Your task to perform on an android device: add a contact Image 0: 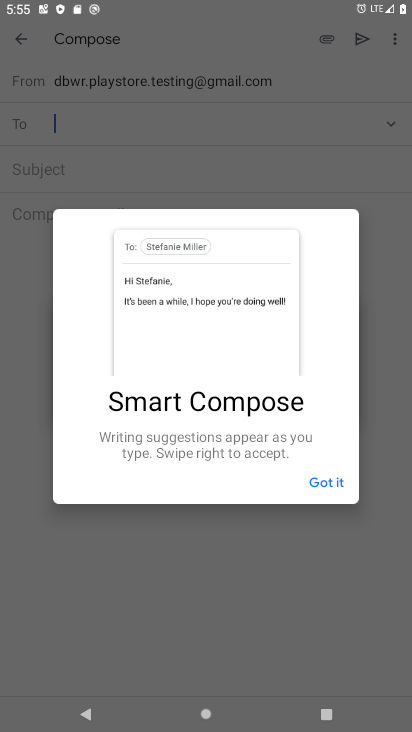
Step 0: press home button
Your task to perform on an android device: add a contact Image 1: 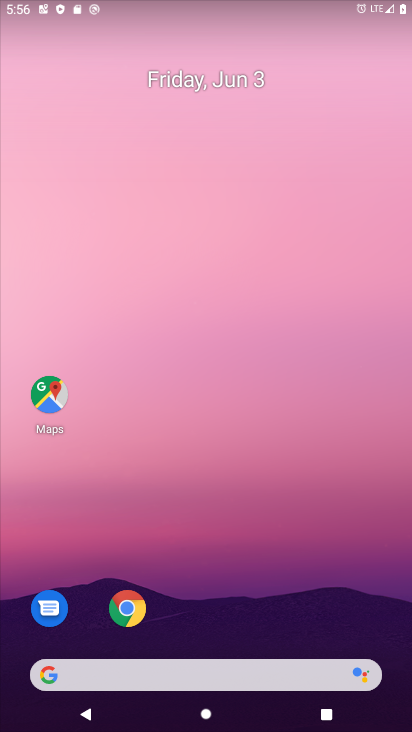
Step 1: drag from (255, 556) to (265, 248)
Your task to perform on an android device: add a contact Image 2: 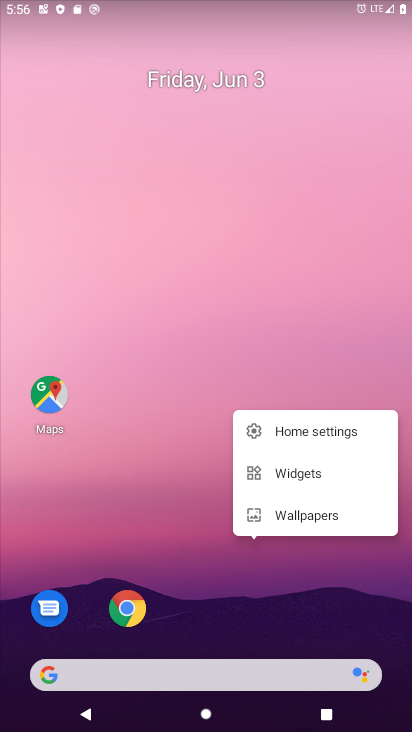
Step 2: click (265, 248)
Your task to perform on an android device: add a contact Image 3: 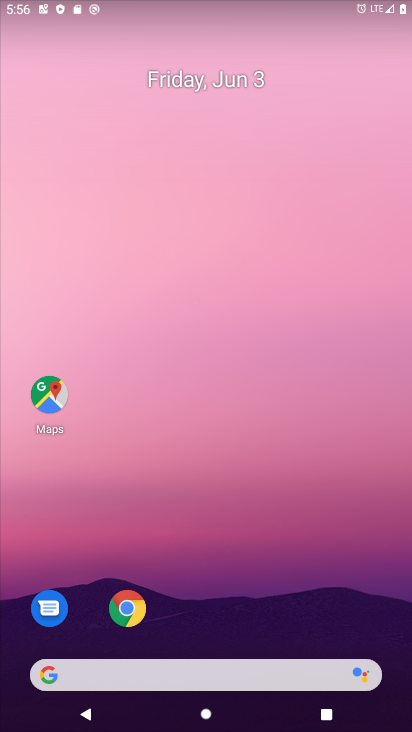
Step 3: drag from (232, 525) to (253, 252)
Your task to perform on an android device: add a contact Image 4: 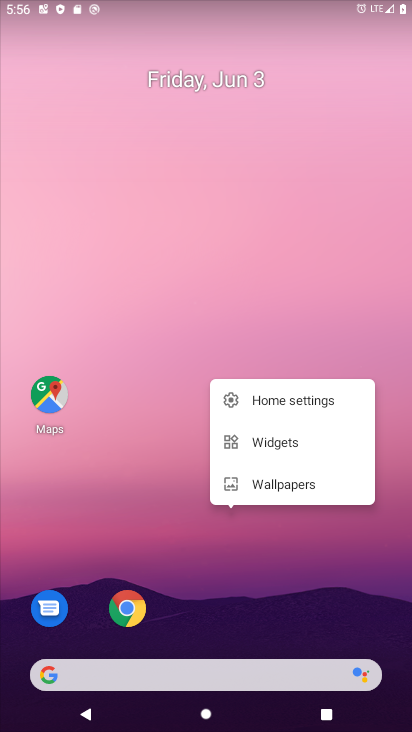
Step 4: click (253, 252)
Your task to perform on an android device: add a contact Image 5: 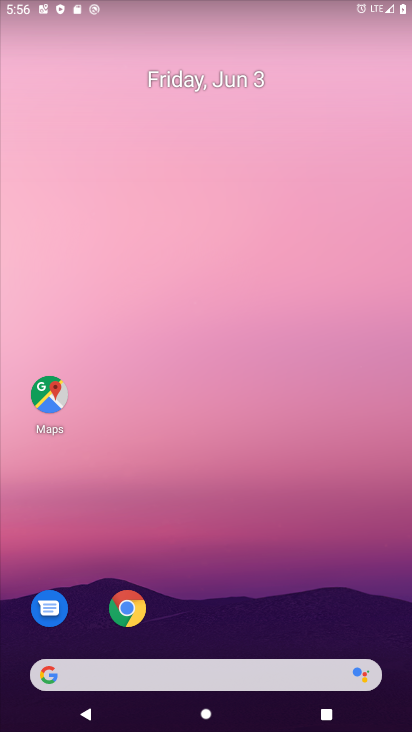
Step 5: drag from (319, 577) to (279, 8)
Your task to perform on an android device: add a contact Image 6: 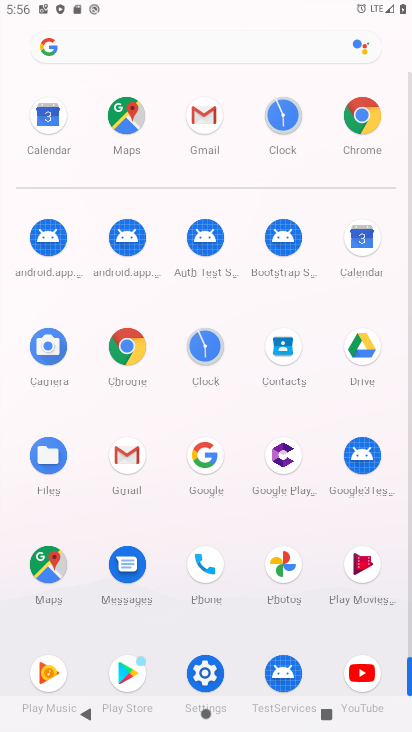
Step 6: click (276, 354)
Your task to perform on an android device: add a contact Image 7: 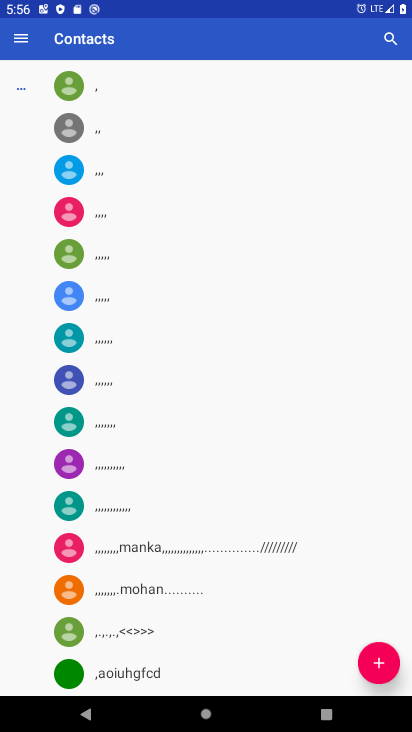
Step 7: click (370, 660)
Your task to perform on an android device: add a contact Image 8: 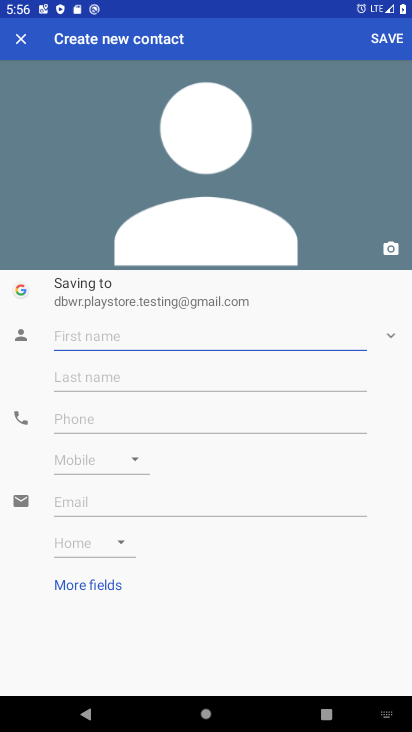
Step 8: type "gg"
Your task to perform on an android device: add a contact Image 9: 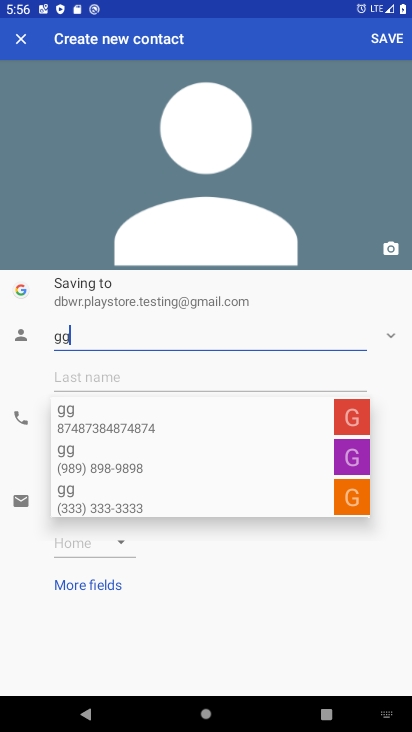
Step 9: type "fg"
Your task to perform on an android device: add a contact Image 10: 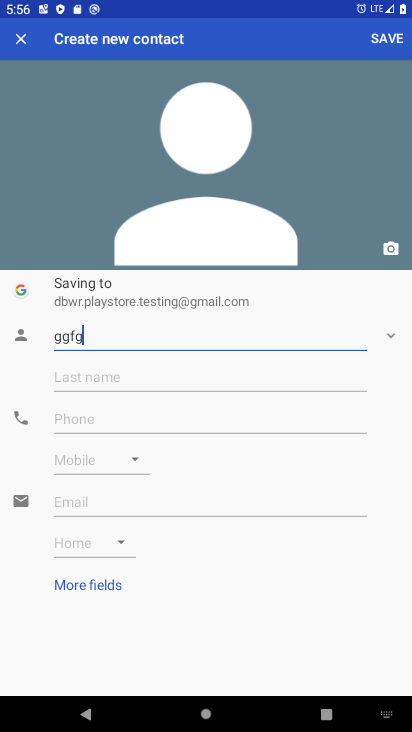
Step 10: click (100, 413)
Your task to perform on an android device: add a contact Image 11: 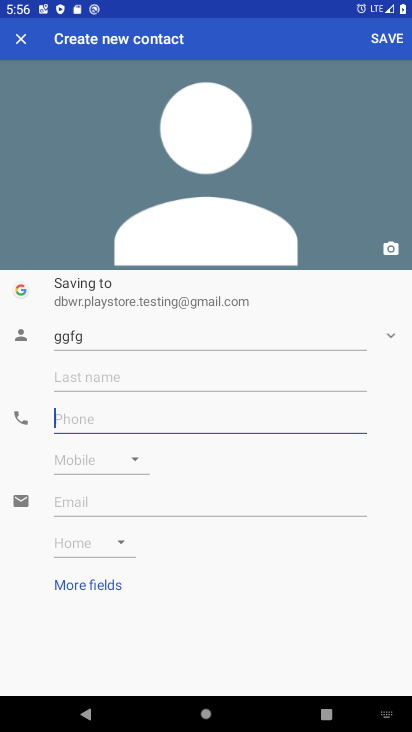
Step 11: type "66099735"
Your task to perform on an android device: add a contact Image 12: 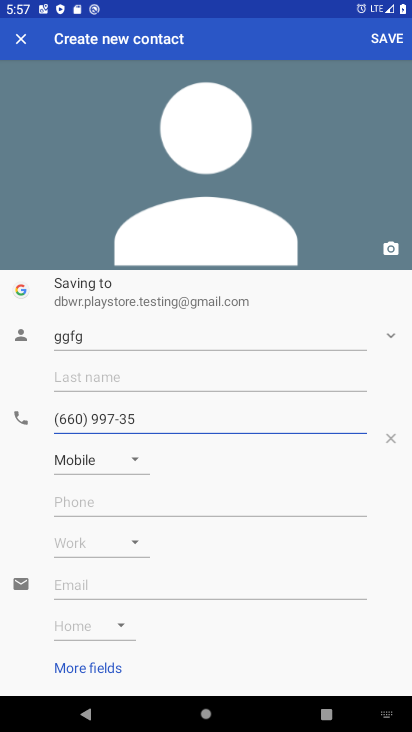
Step 12: click (385, 37)
Your task to perform on an android device: add a contact Image 13: 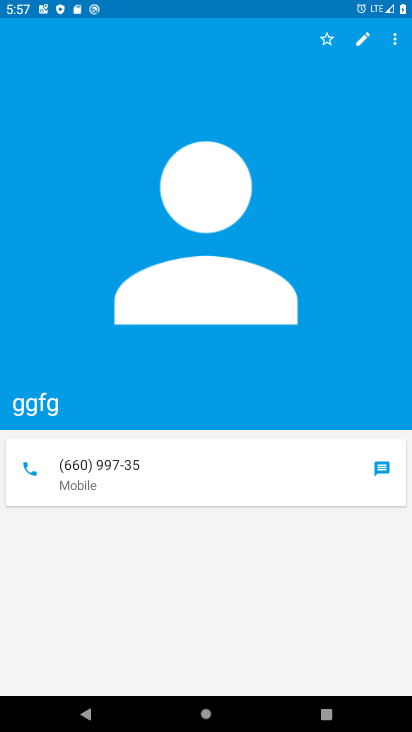
Step 13: task complete